Your task to perform on an android device: turn pop-ups on in chrome Image 0: 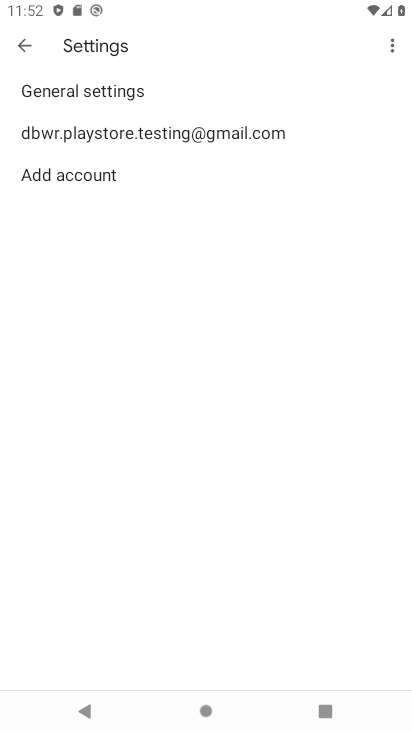
Step 0: press home button
Your task to perform on an android device: turn pop-ups on in chrome Image 1: 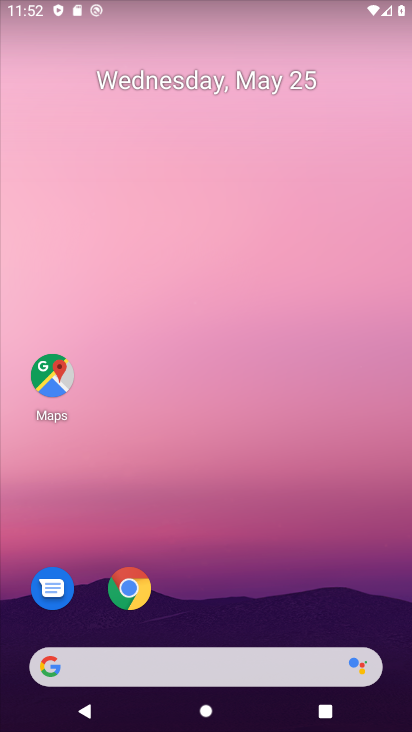
Step 1: click (139, 593)
Your task to perform on an android device: turn pop-ups on in chrome Image 2: 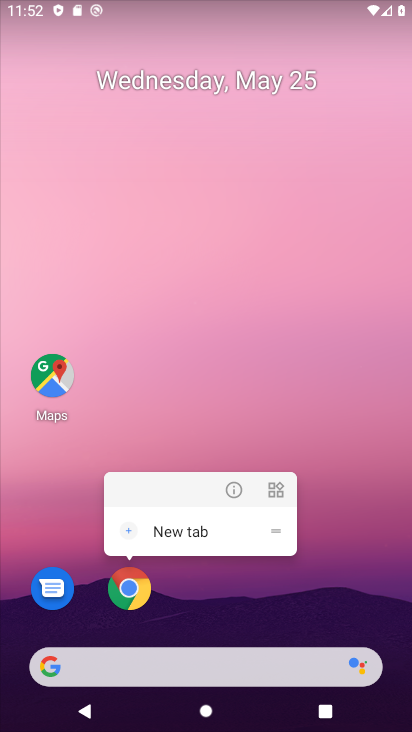
Step 2: click (135, 596)
Your task to perform on an android device: turn pop-ups on in chrome Image 3: 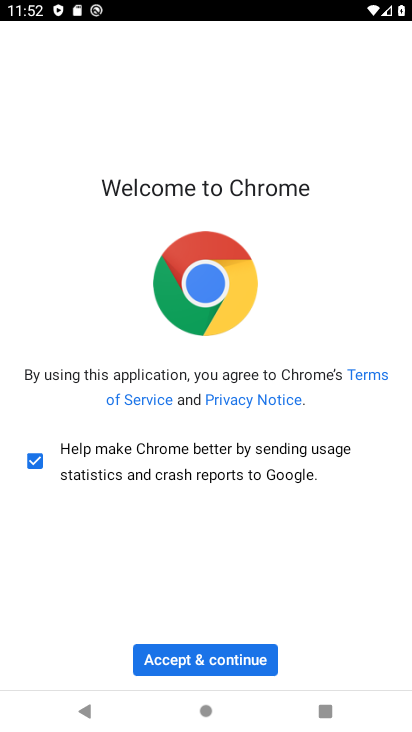
Step 3: click (240, 671)
Your task to perform on an android device: turn pop-ups on in chrome Image 4: 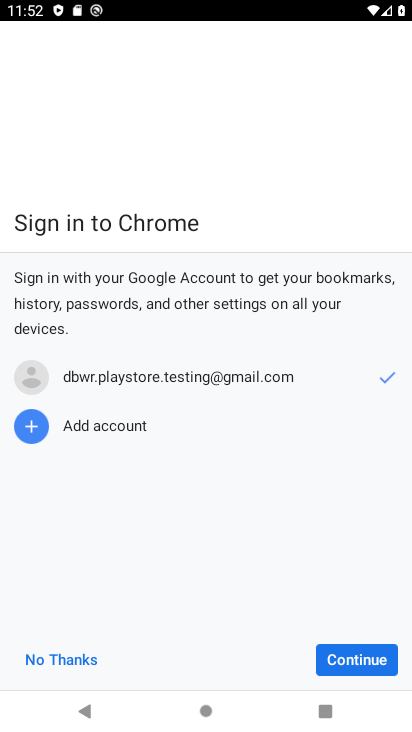
Step 4: click (361, 655)
Your task to perform on an android device: turn pop-ups on in chrome Image 5: 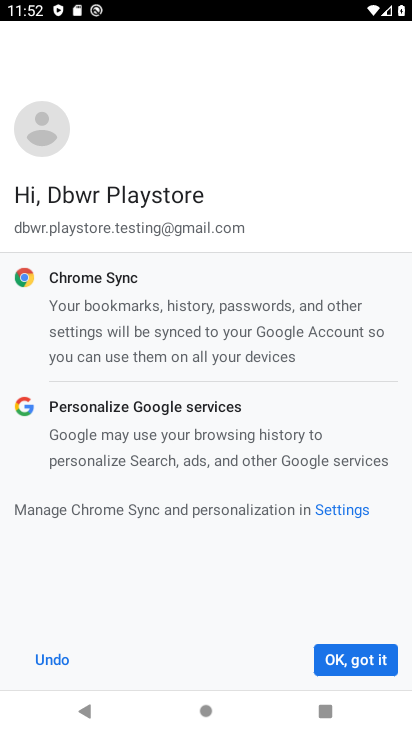
Step 5: click (362, 653)
Your task to perform on an android device: turn pop-ups on in chrome Image 6: 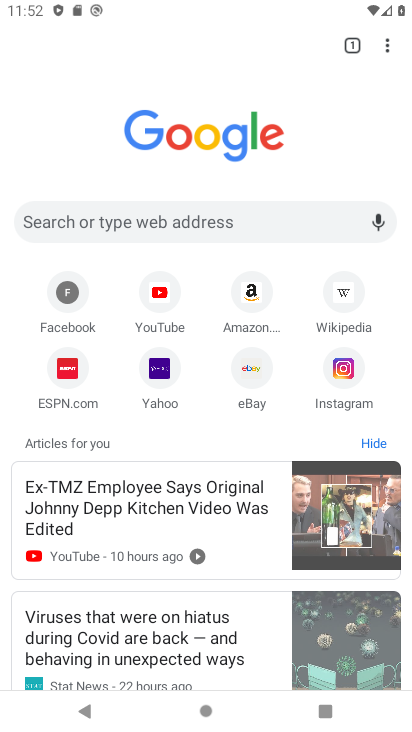
Step 6: drag from (392, 42) to (307, 380)
Your task to perform on an android device: turn pop-ups on in chrome Image 7: 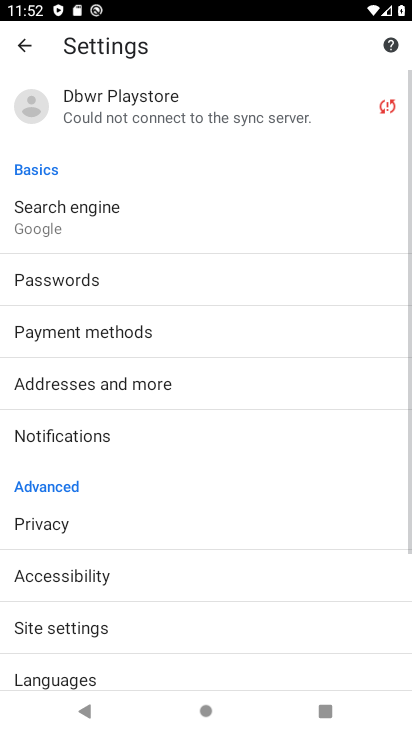
Step 7: drag from (174, 649) to (220, 479)
Your task to perform on an android device: turn pop-ups on in chrome Image 8: 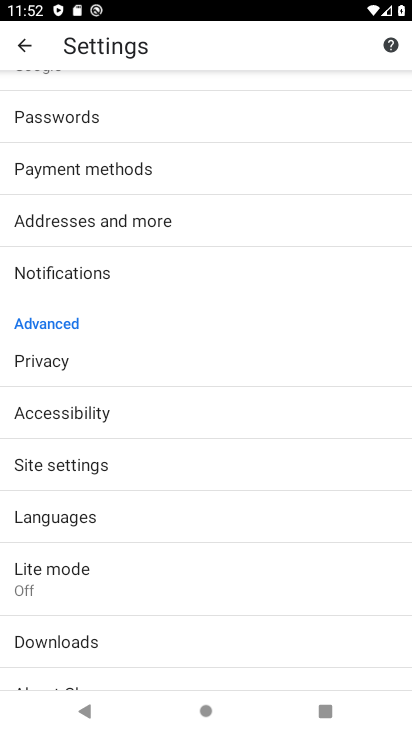
Step 8: click (103, 474)
Your task to perform on an android device: turn pop-ups on in chrome Image 9: 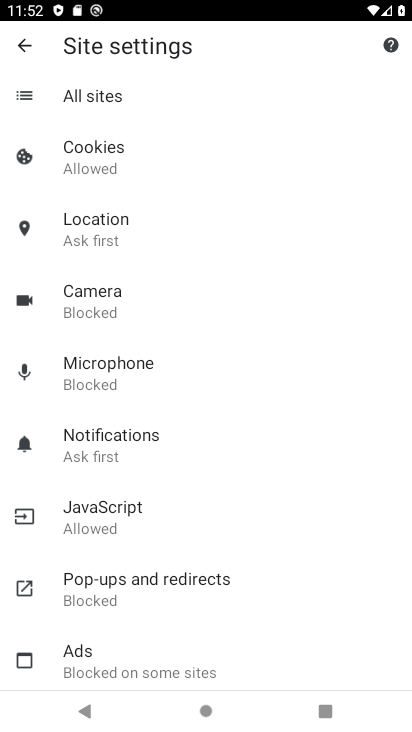
Step 9: drag from (145, 634) to (217, 456)
Your task to perform on an android device: turn pop-ups on in chrome Image 10: 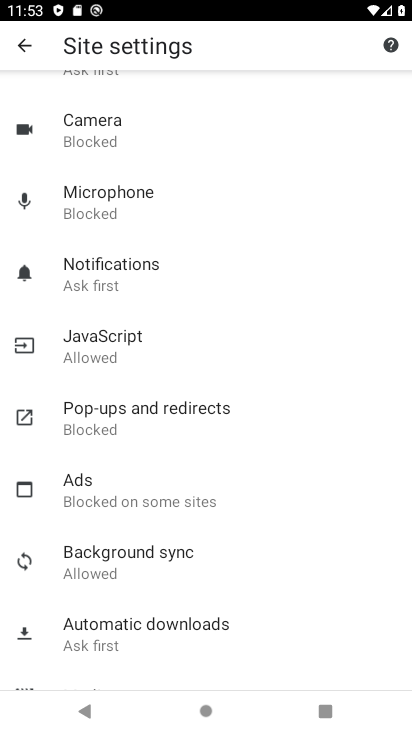
Step 10: click (183, 427)
Your task to perform on an android device: turn pop-ups on in chrome Image 11: 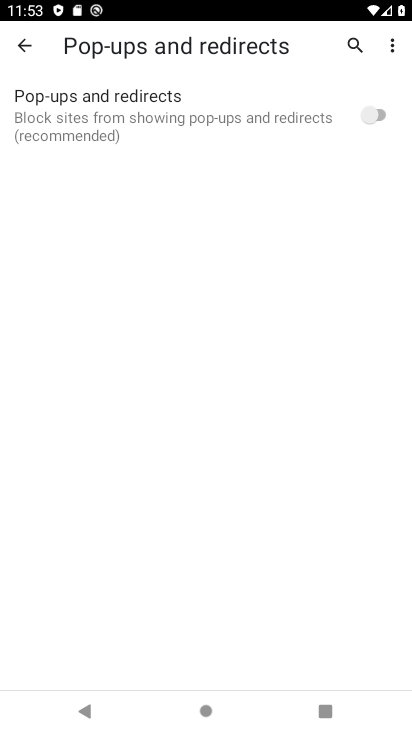
Step 11: click (392, 112)
Your task to perform on an android device: turn pop-ups on in chrome Image 12: 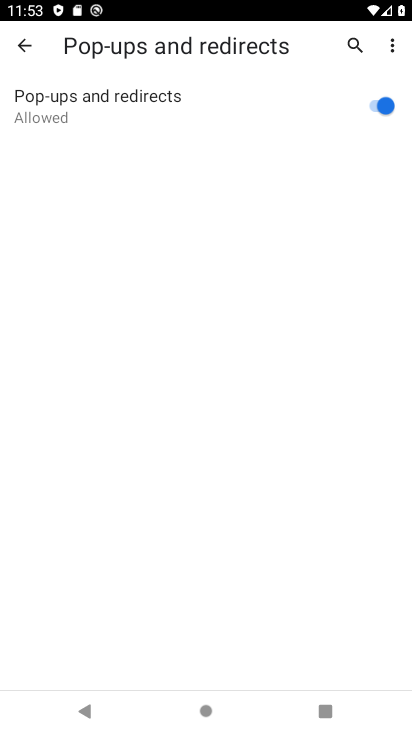
Step 12: task complete